Your task to perform on an android device: Open Google Image 0: 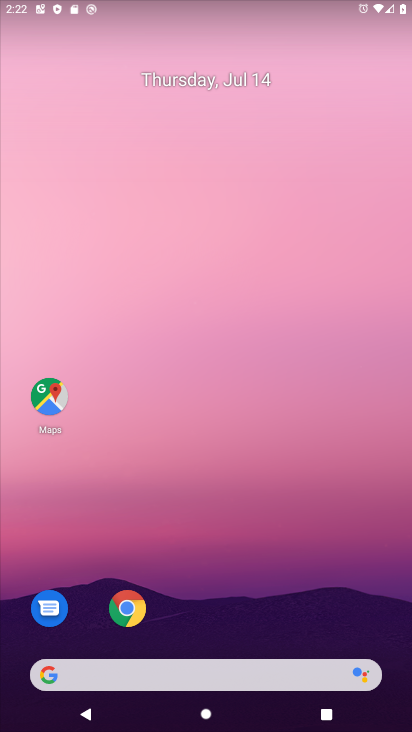
Step 0: drag from (238, 726) to (254, 163)
Your task to perform on an android device: Open Google Image 1: 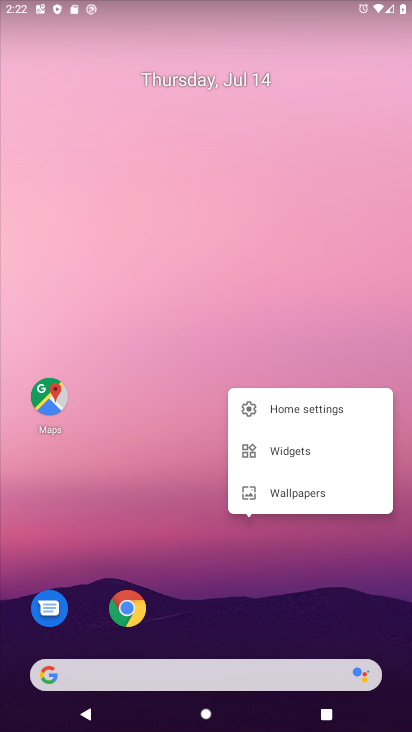
Step 1: click (273, 281)
Your task to perform on an android device: Open Google Image 2: 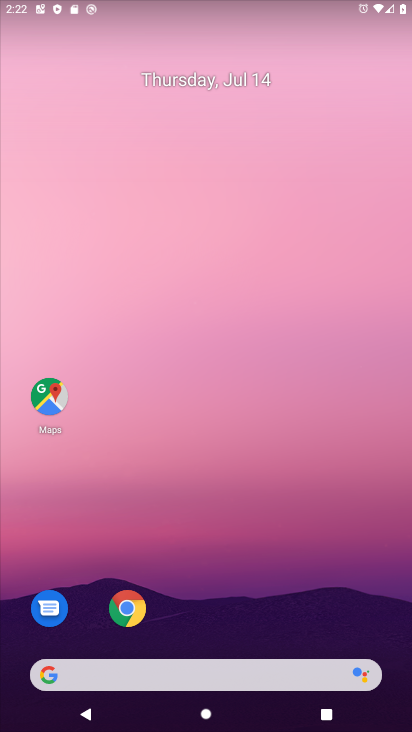
Step 2: drag from (229, 723) to (235, 580)
Your task to perform on an android device: Open Google Image 3: 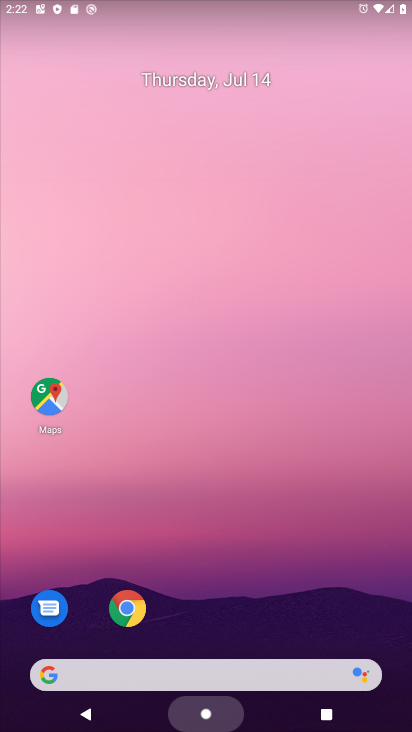
Step 3: drag from (215, 233) to (215, 105)
Your task to perform on an android device: Open Google Image 4: 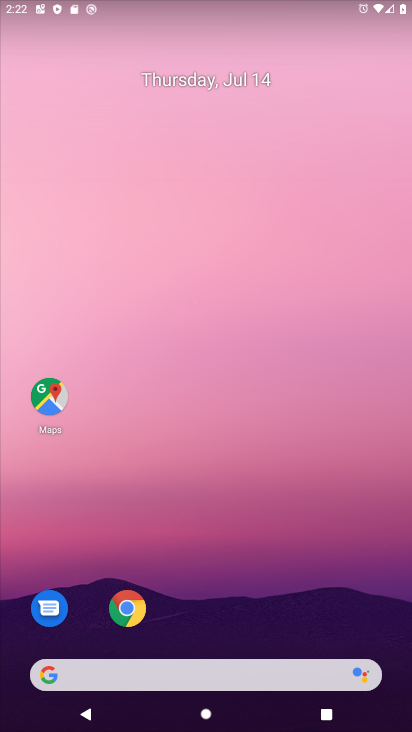
Step 4: drag from (235, 720) to (207, 106)
Your task to perform on an android device: Open Google Image 5: 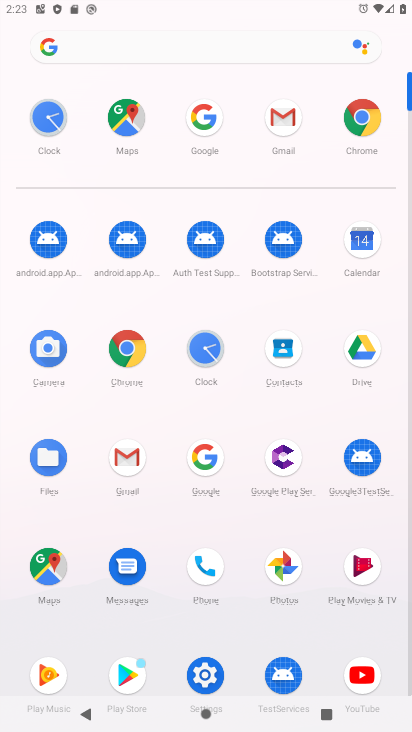
Step 5: click (205, 450)
Your task to perform on an android device: Open Google Image 6: 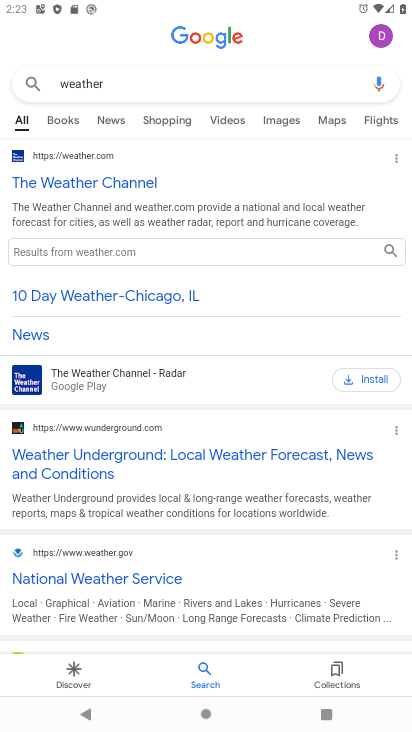
Step 6: task complete